Your task to perform on an android device: Do I have any events this weekend? Image 0: 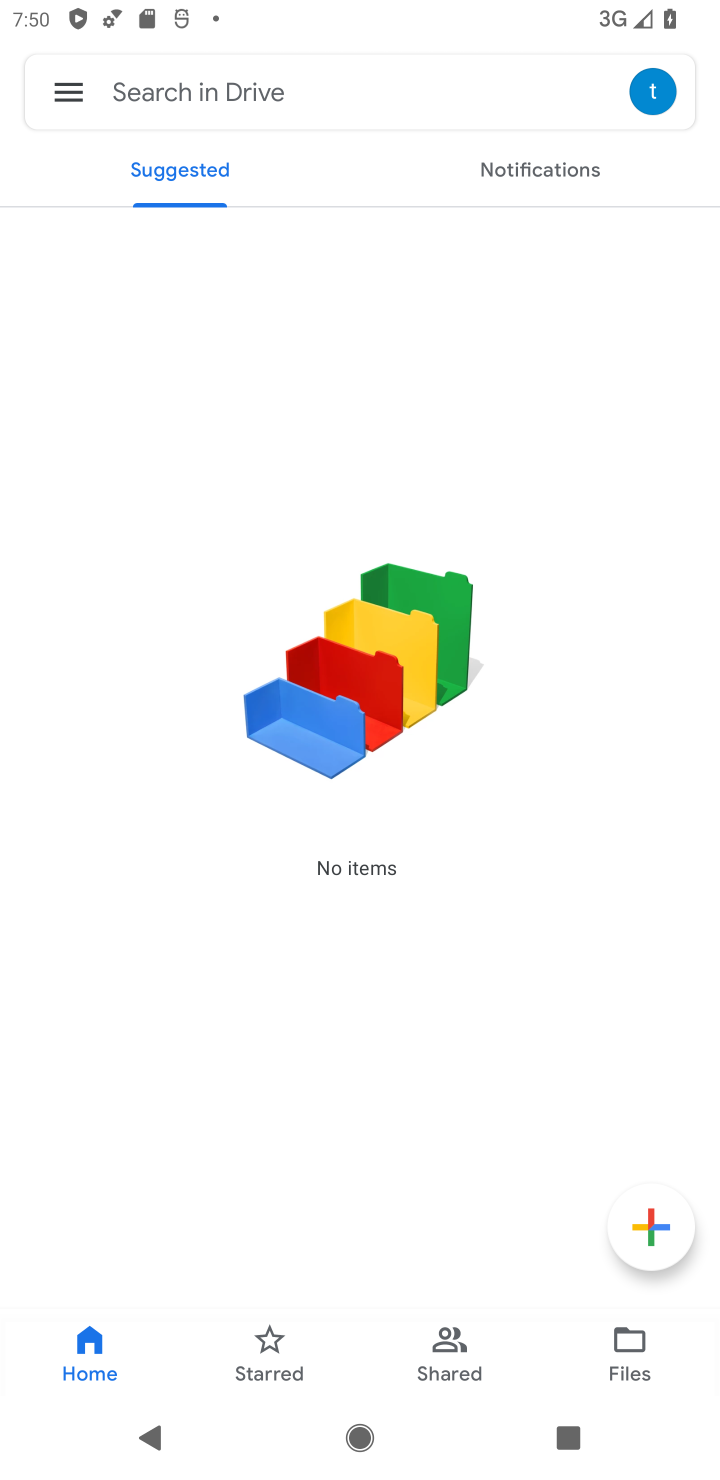
Step 0: press home button
Your task to perform on an android device: Do I have any events this weekend? Image 1: 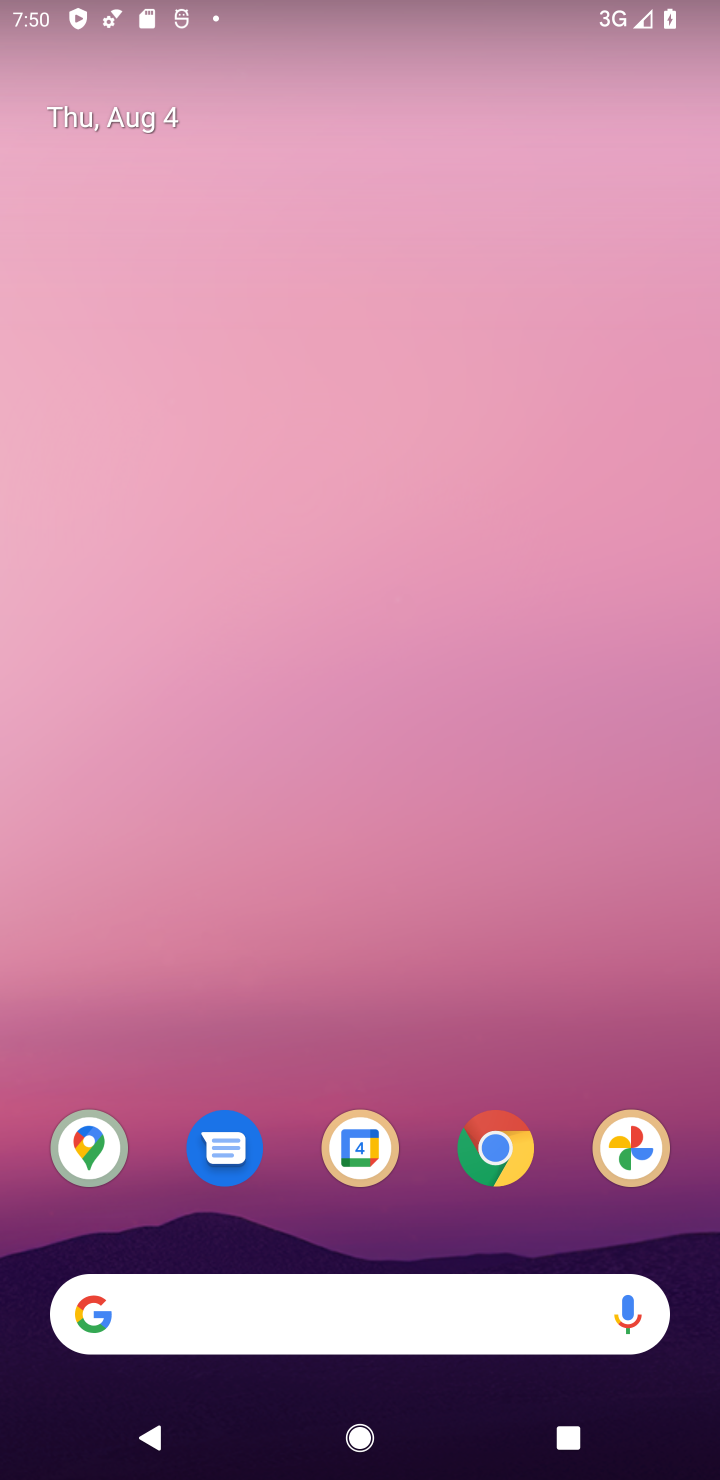
Step 1: drag from (408, 812) to (406, 52)
Your task to perform on an android device: Do I have any events this weekend? Image 2: 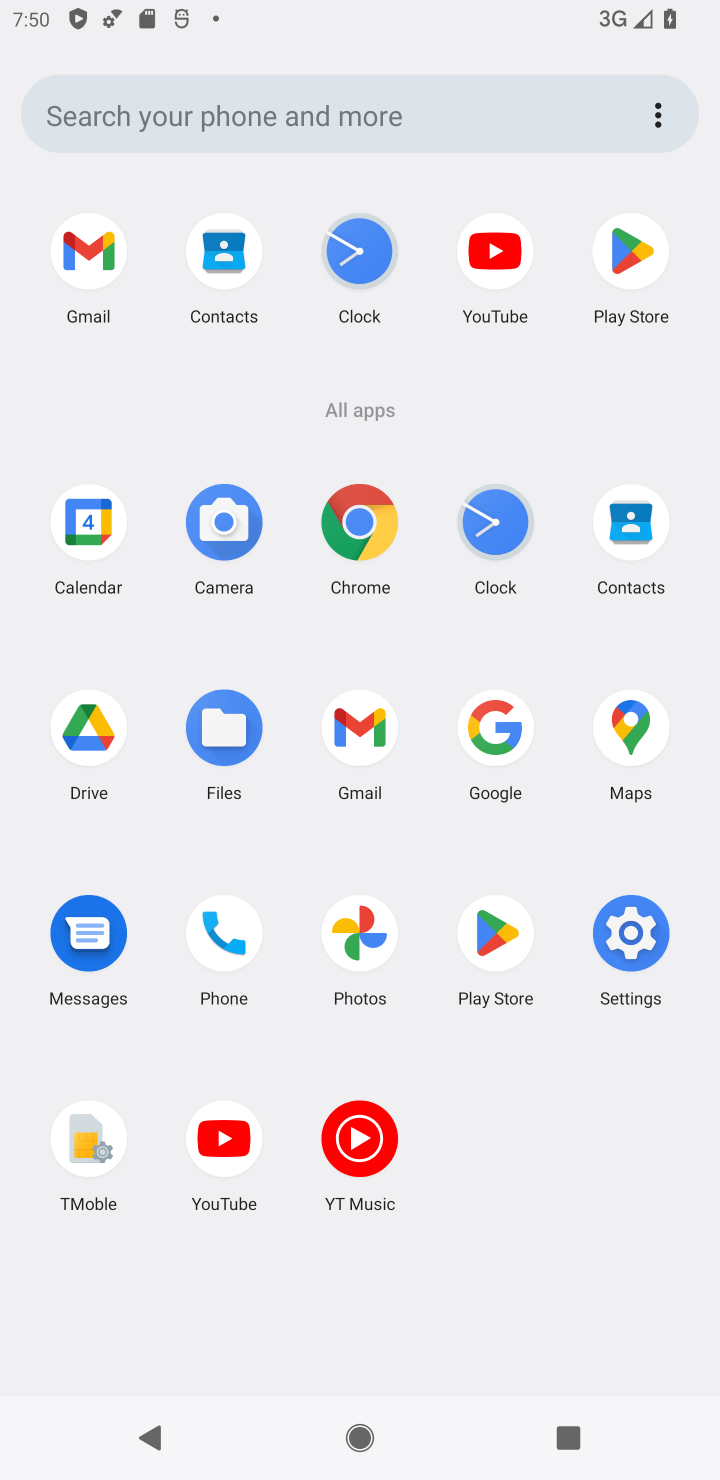
Step 2: click (88, 534)
Your task to perform on an android device: Do I have any events this weekend? Image 3: 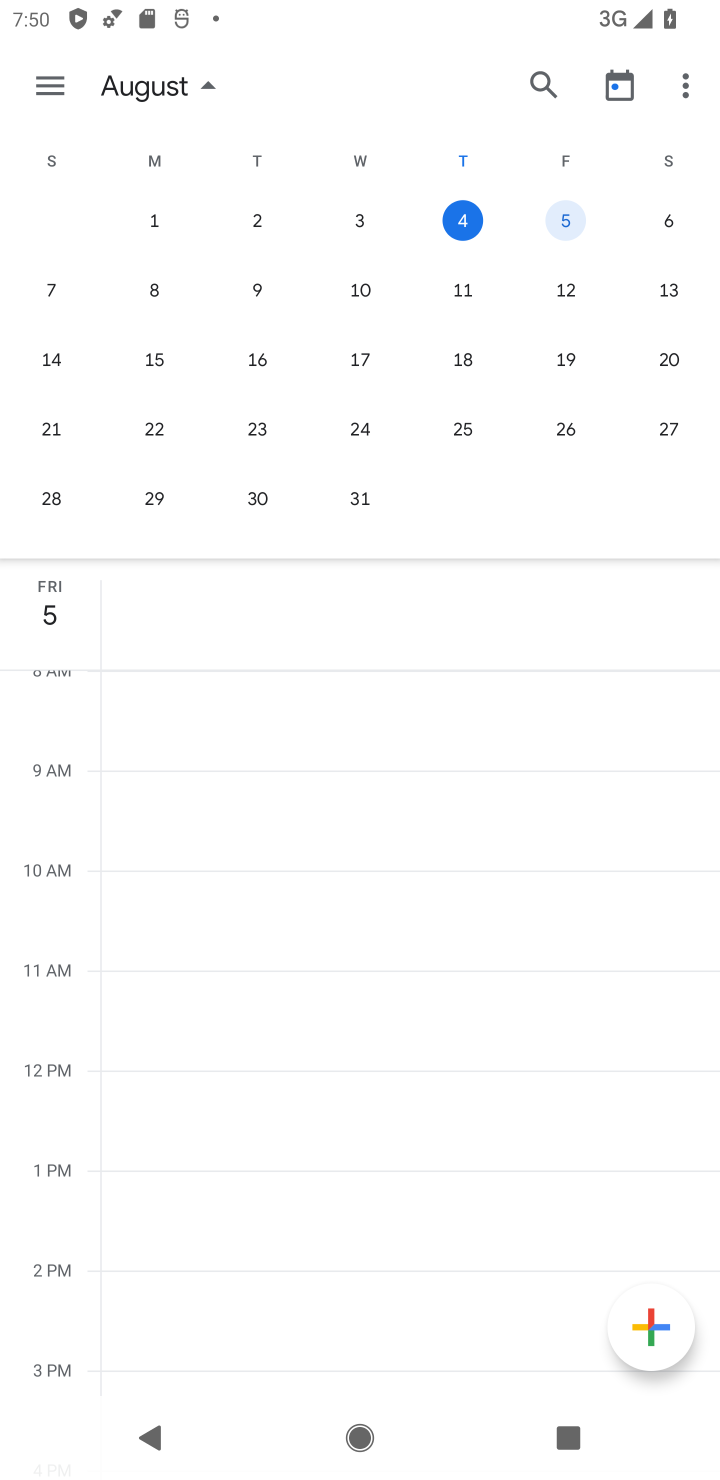
Step 3: click (49, 96)
Your task to perform on an android device: Do I have any events this weekend? Image 4: 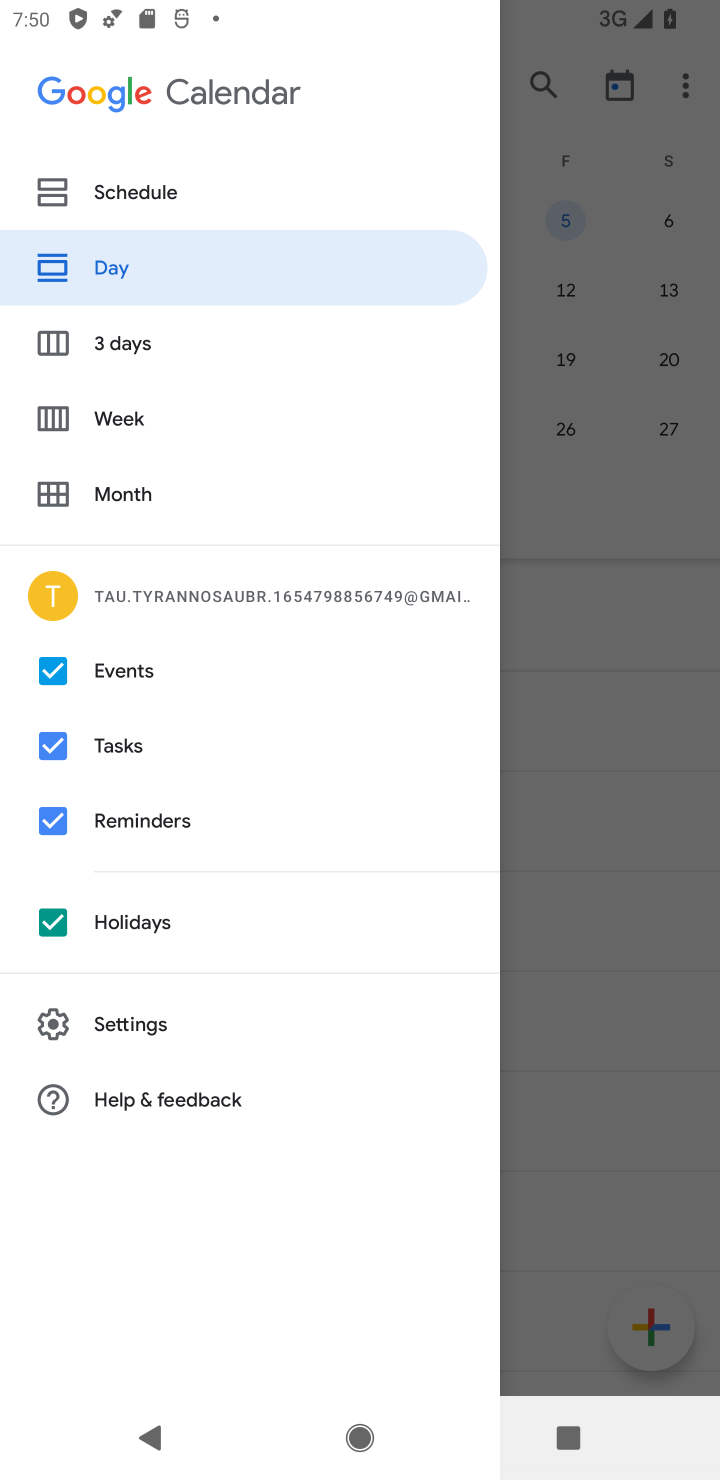
Step 4: click (125, 341)
Your task to perform on an android device: Do I have any events this weekend? Image 5: 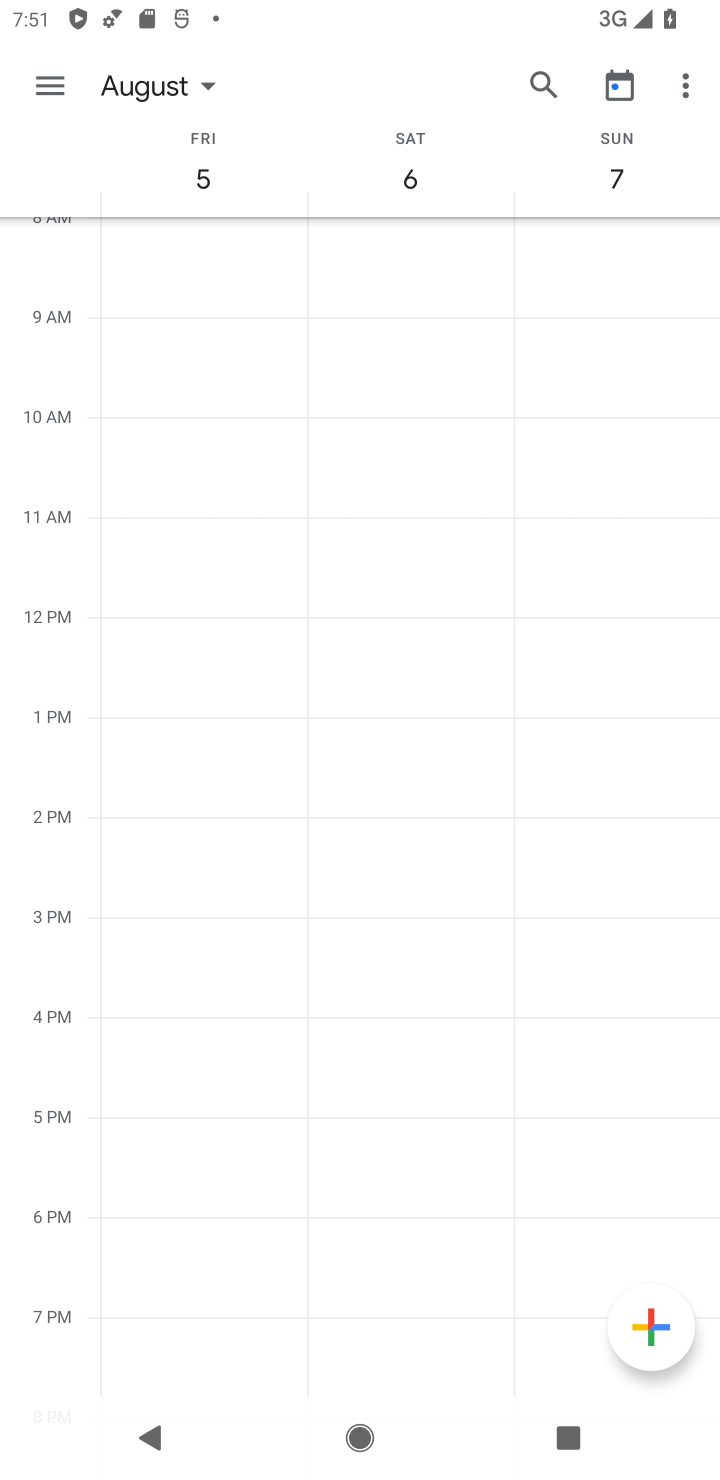
Step 5: task complete